Your task to perform on an android device: remove spam from my inbox in the gmail app Image 0: 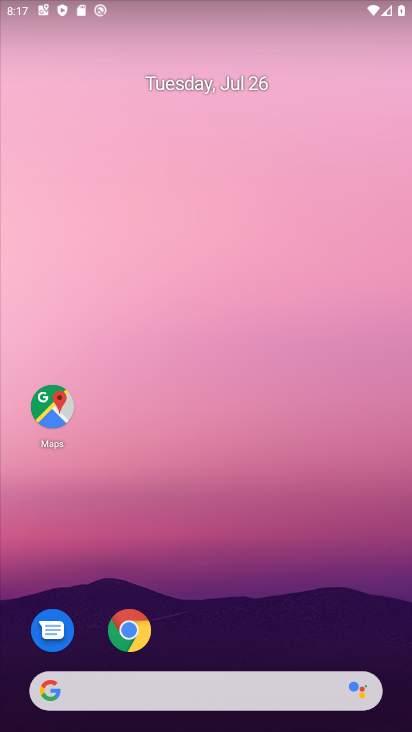
Step 0: drag from (286, 611) to (269, 205)
Your task to perform on an android device: remove spam from my inbox in the gmail app Image 1: 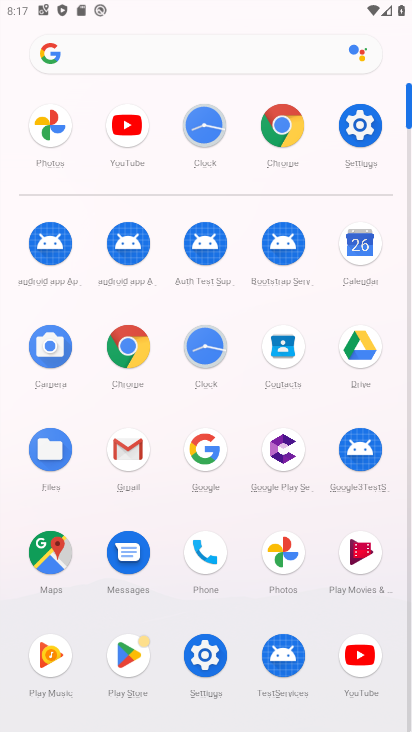
Step 1: click (134, 475)
Your task to perform on an android device: remove spam from my inbox in the gmail app Image 2: 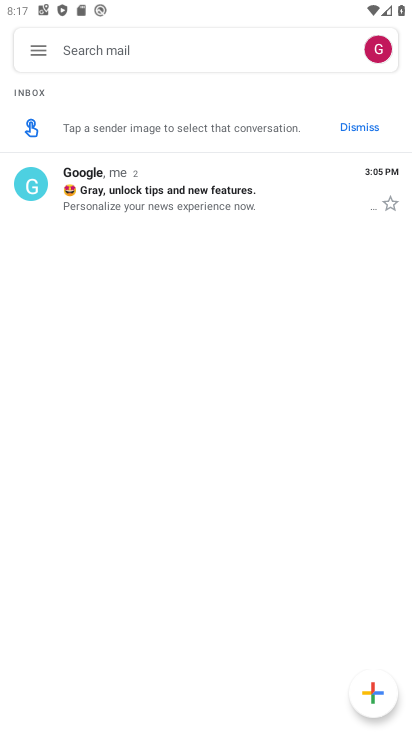
Step 2: click (39, 43)
Your task to perform on an android device: remove spam from my inbox in the gmail app Image 3: 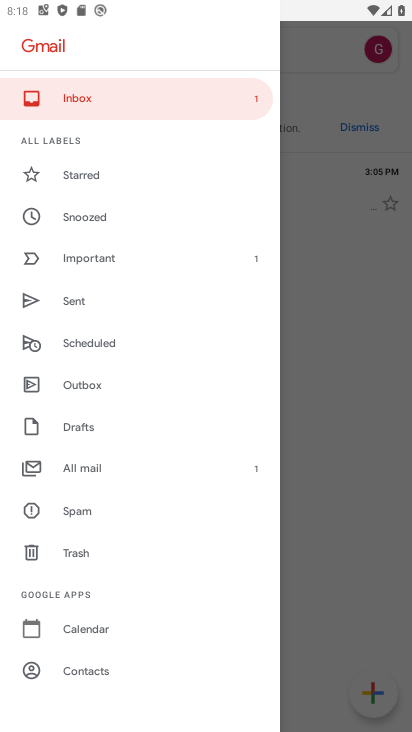
Step 3: click (87, 511)
Your task to perform on an android device: remove spam from my inbox in the gmail app Image 4: 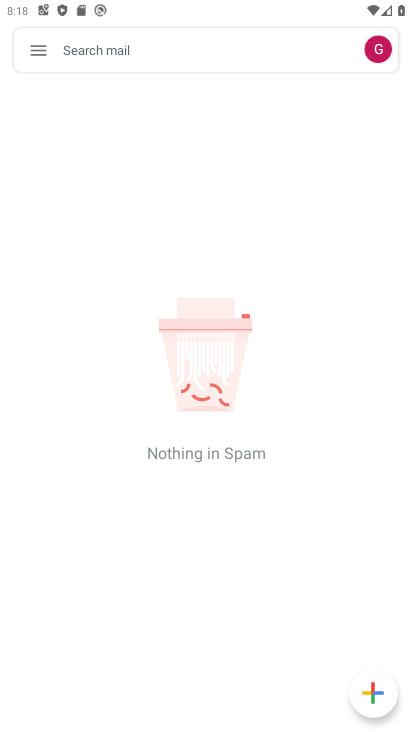
Step 4: task complete